Your task to perform on an android device: toggle notification dots Image 0: 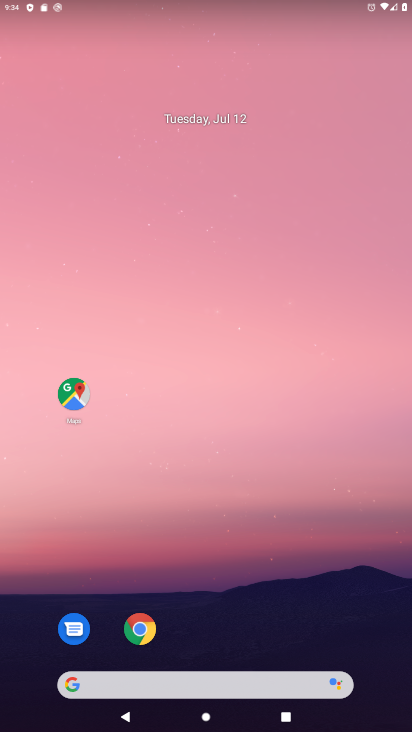
Step 0: drag from (372, 643) to (310, 69)
Your task to perform on an android device: toggle notification dots Image 1: 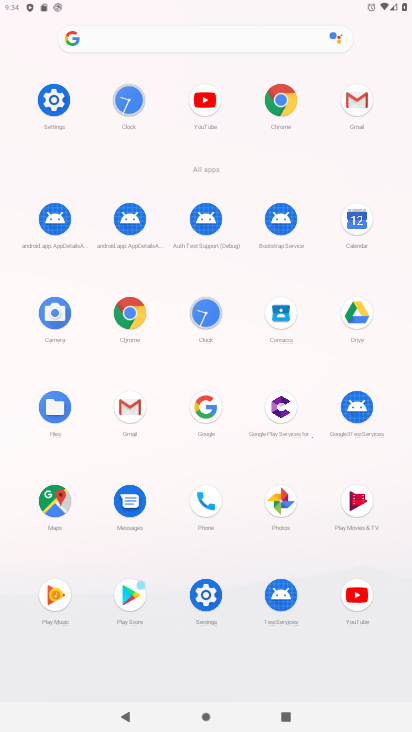
Step 1: click (206, 595)
Your task to perform on an android device: toggle notification dots Image 2: 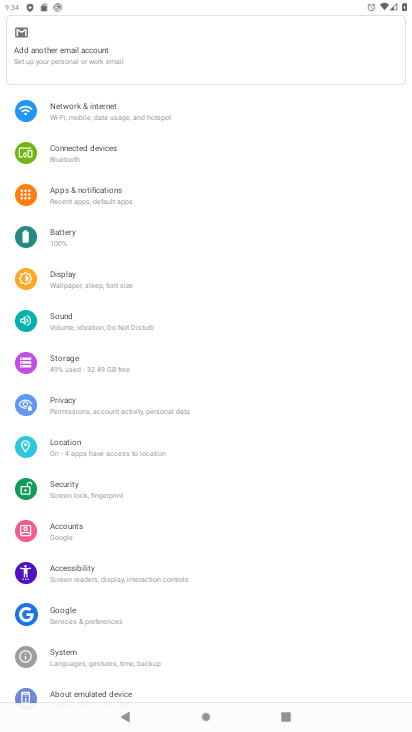
Step 2: click (75, 196)
Your task to perform on an android device: toggle notification dots Image 3: 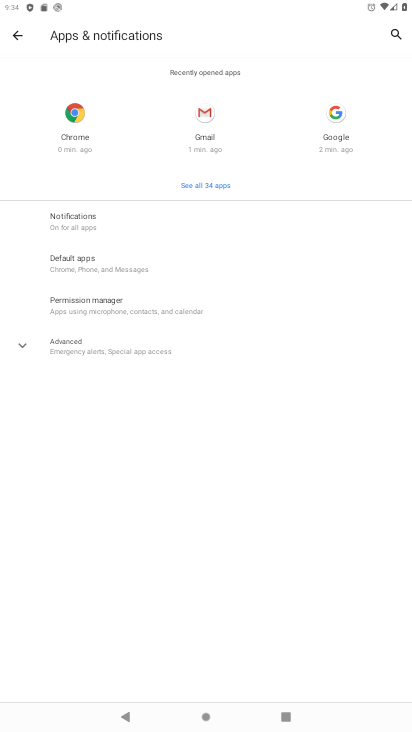
Step 3: click (20, 346)
Your task to perform on an android device: toggle notification dots Image 4: 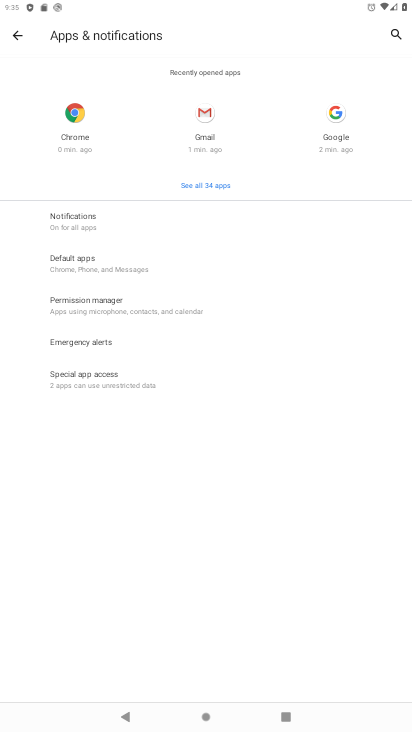
Step 4: click (81, 212)
Your task to perform on an android device: toggle notification dots Image 5: 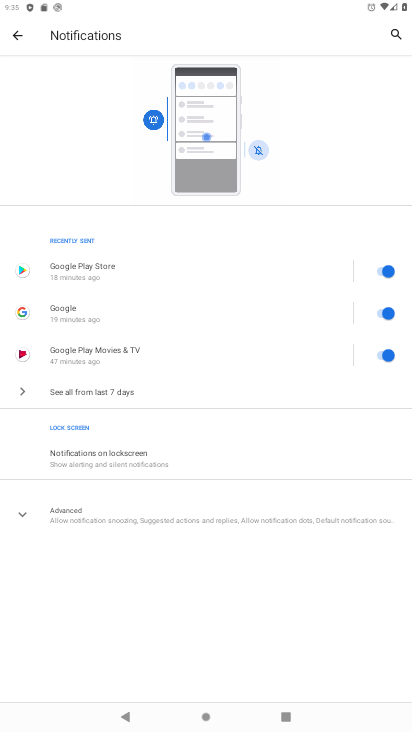
Step 5: click (18, 512)
Your task to perform on an android device: toggle notification dots Image 6: 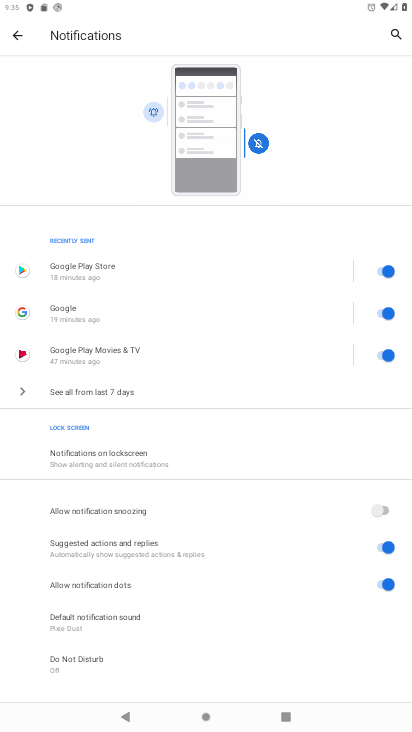
Step 6: click (379, 586)
Your task to perform on an android device: toggle notification dots Image 7: 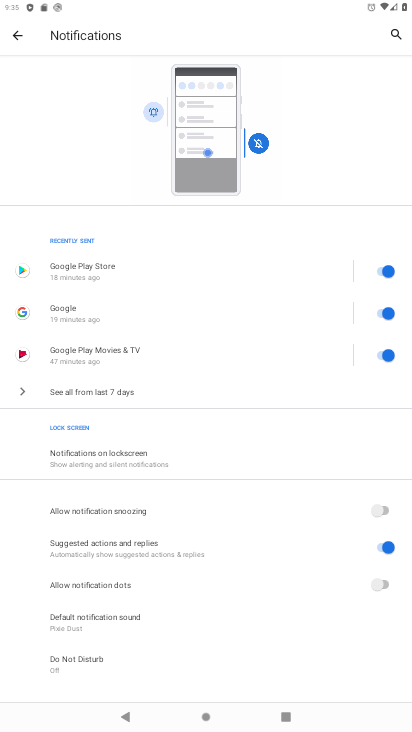
Step 7: task complete